Your task to perform on an android device: turn on the 12-hour format for clock Image 0: 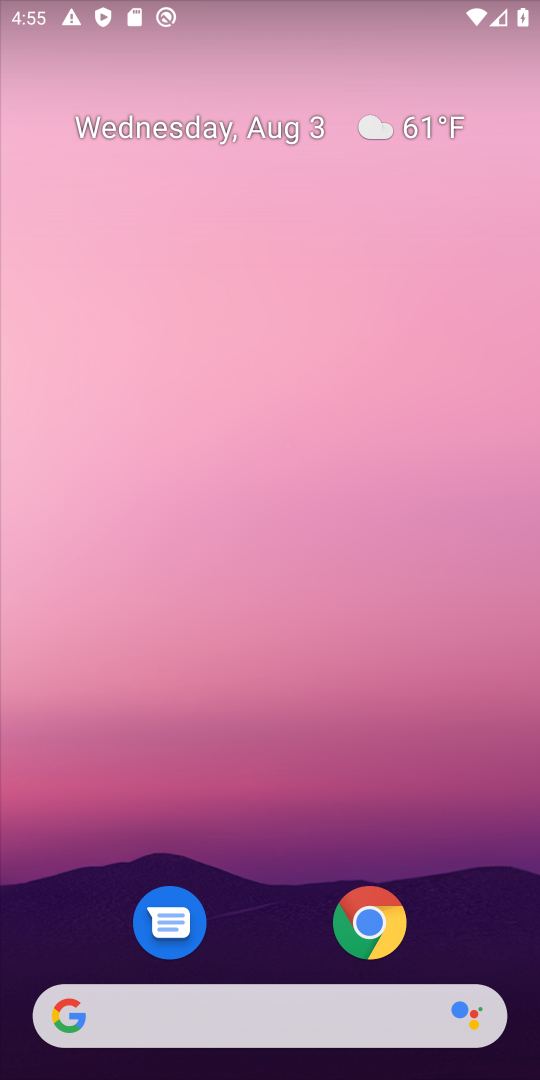
Step 0: drag from (477, 916) to (337, 414)
Your task to perform on an android device: turn on the 12-hour format for clock Image 1: 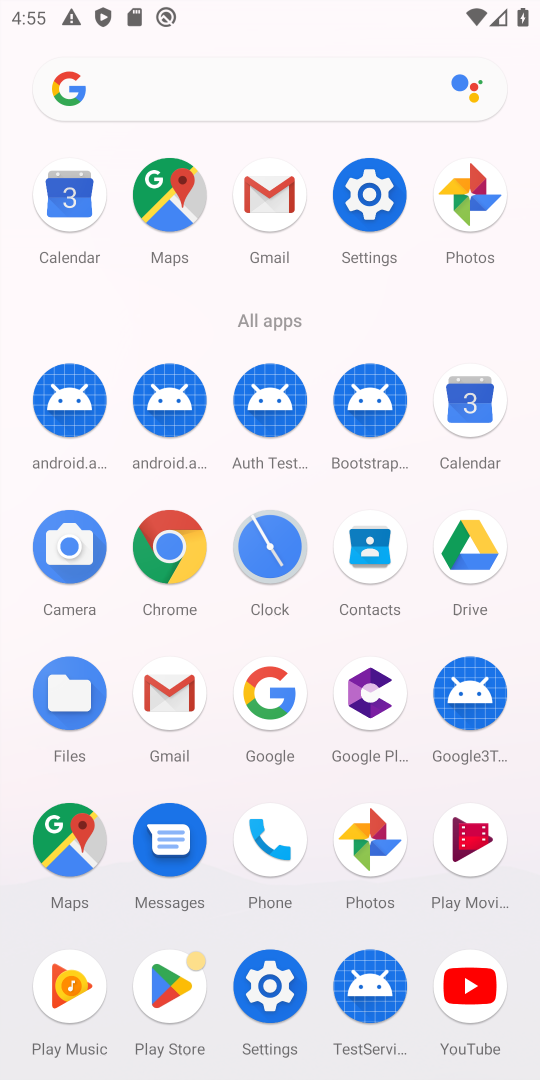
Step 1: click (292, 528)
Your task to perform on an android device: turn on the 12-hour format for clock Image 2: 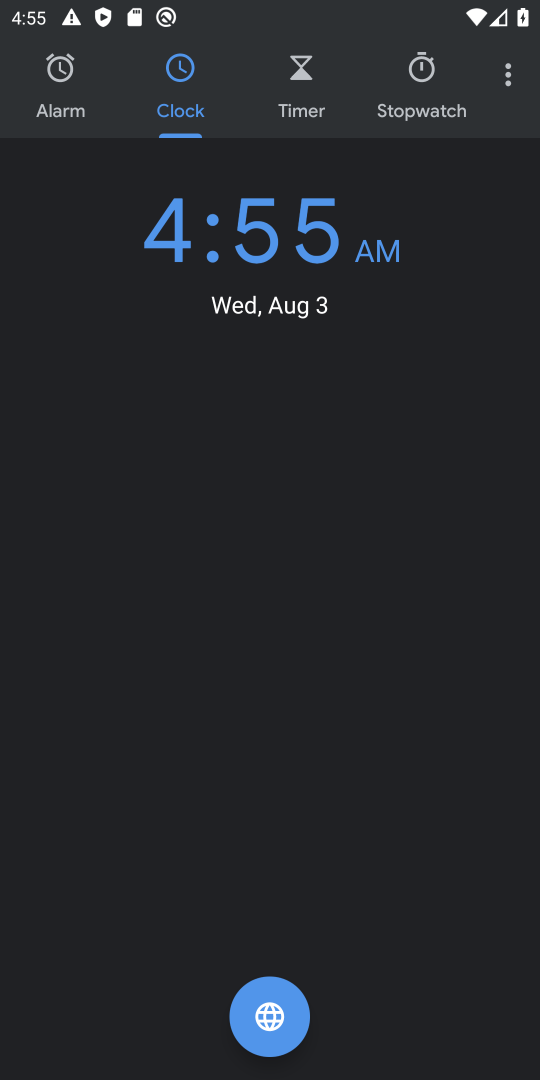
Step 2: click (507, 102)
Your task to perform on an android device: turn on the 12-hour format for clock Image 3: 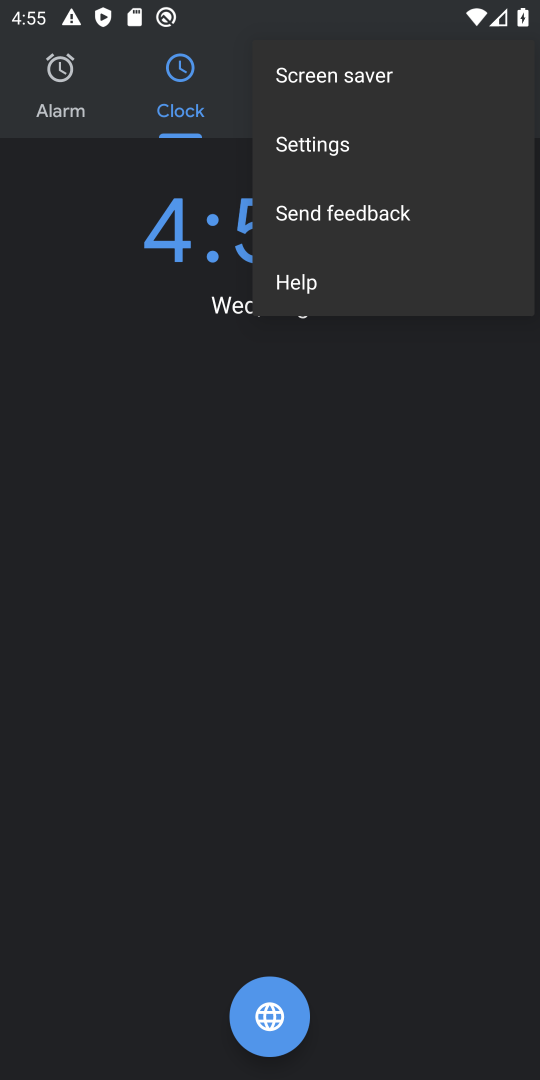
Step 3: click (375, 166)
Your task to perform on an android device: turn on the 12-hour format for clock Image 4: 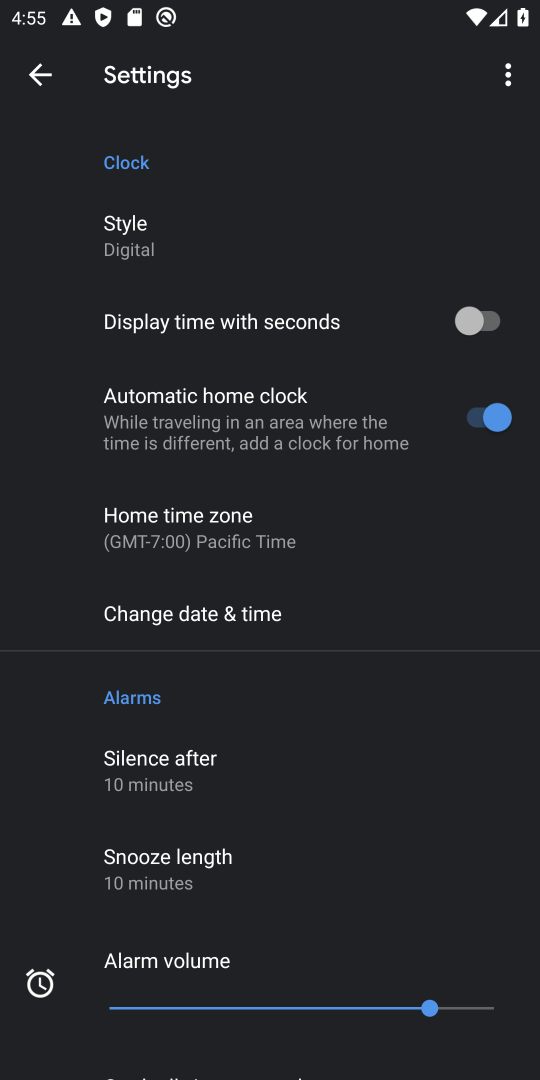
Step 4: click (352, 620)
Your task to perform on an android device: turn on the 12-hour format for clock Image 5: 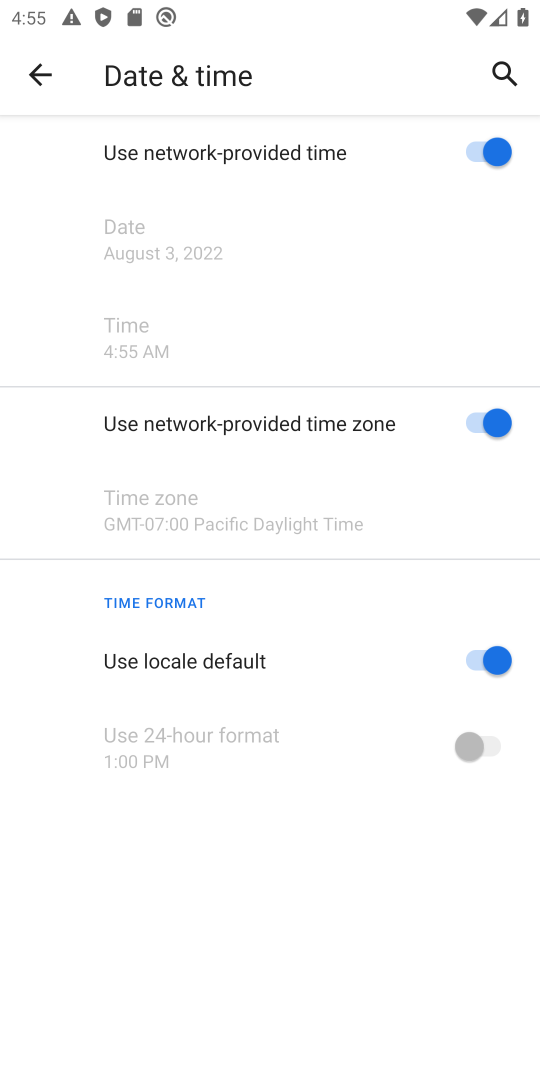
Step 5: task complete